Your task to perform on an android device: change alarm snooze length Image 0: 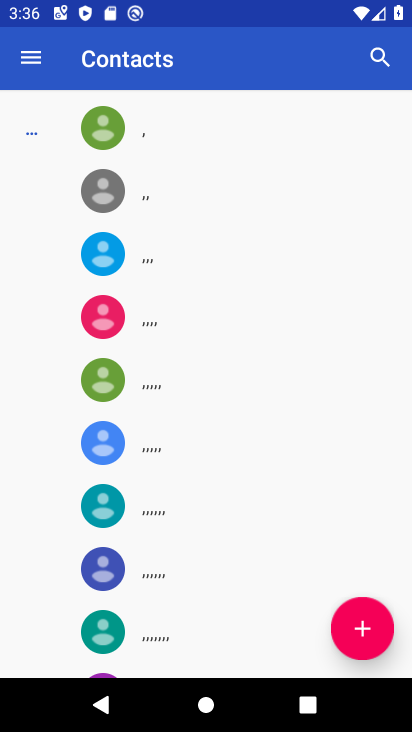
Step 0: press home button
Your task to perform on an android device: change alarm snooze length Image 1: 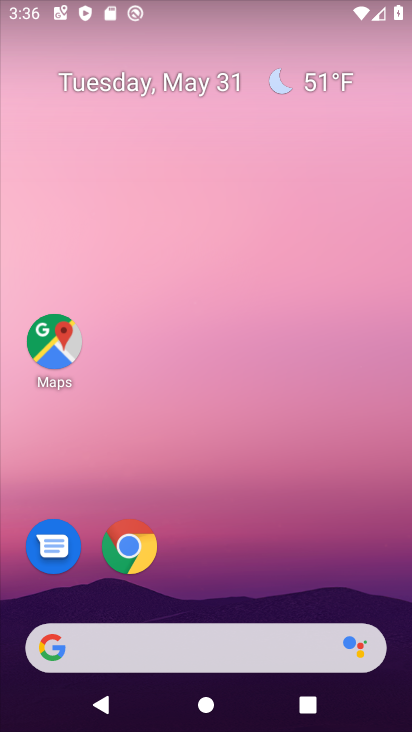
Step 1: drag from (241, 599) to (228, 265)
Your task to perform on an android device: change alarm snooze length Image 2: 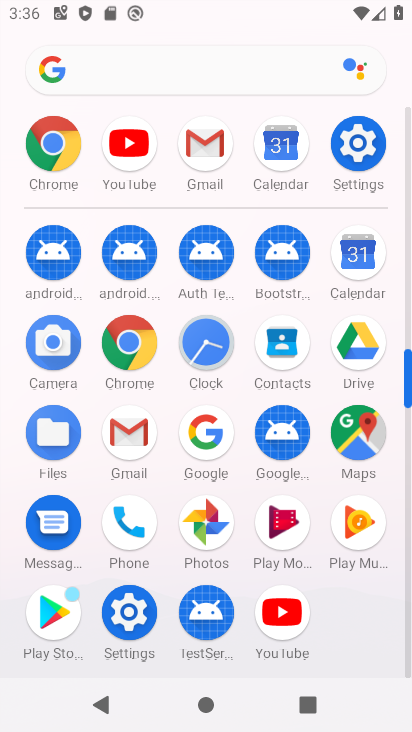
Step 2: click (224, 348)
Your task to perform on an android device: change alarm snooze length Image 3: 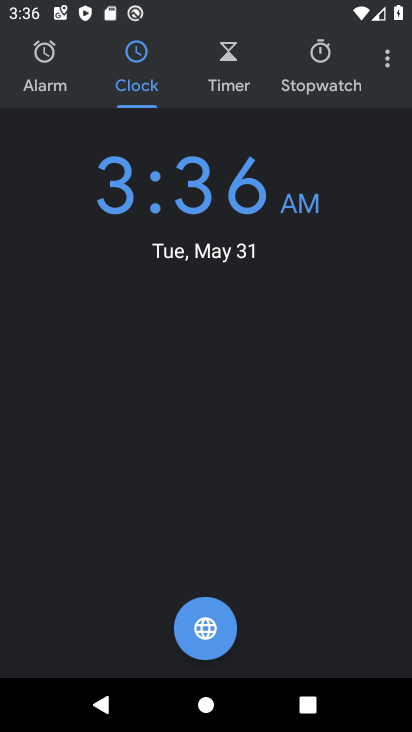
Step 3: click (56, 84)
Your task to perform on an android device: change alarm snooze length Image 4: 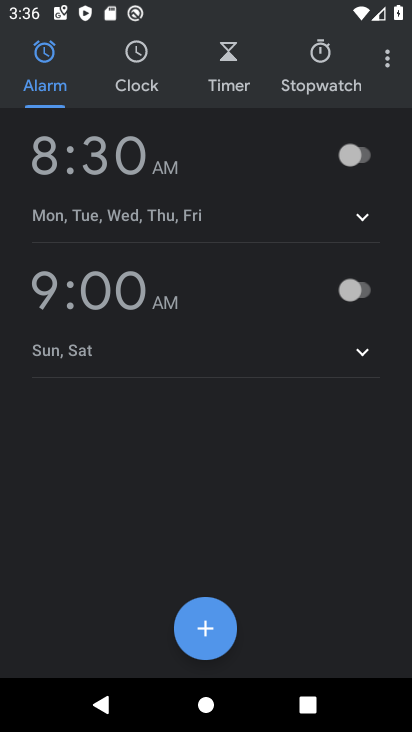
Step 4: click (388, 70)
Your task to perform on an android device: change alarm snooze length Image 5: 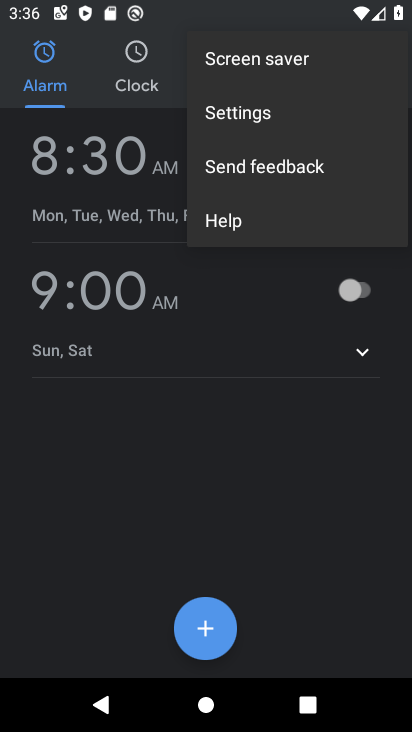
Step 5: click (291, 107)
Your task to perform on an android device: change alarm snooze length Image 6: 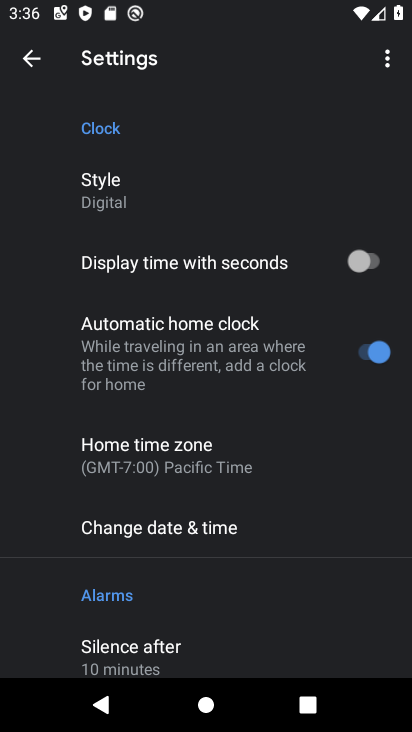
Step 6: drag from (130, 662) to (134, 441)
Your task to perform on an android device: change alarm snooze length Image 7: 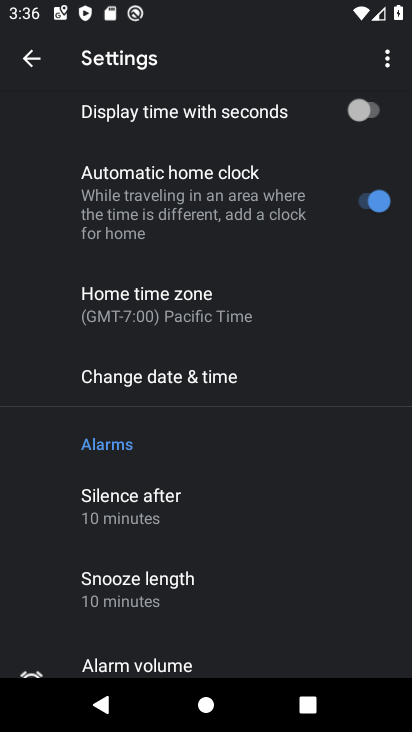
Step 7: click (113, 660)
Your task to perform on an android device: change alarm snooze length Image 8: 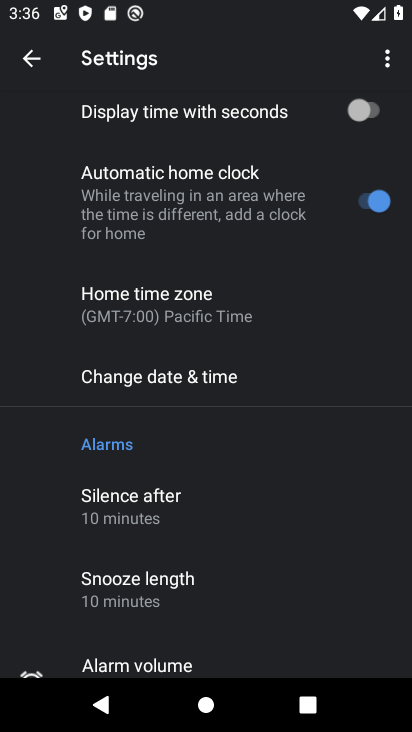
Step 8: click (144, 589)
Your task to perform on an android device: change alarm snooze length Image 9: 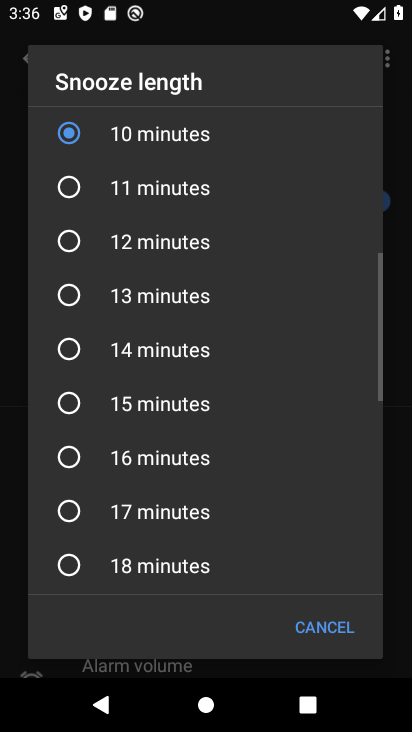
Step 9: click (71, 568)
Your task to perform on an android device: change alarm snooze length Image 10: 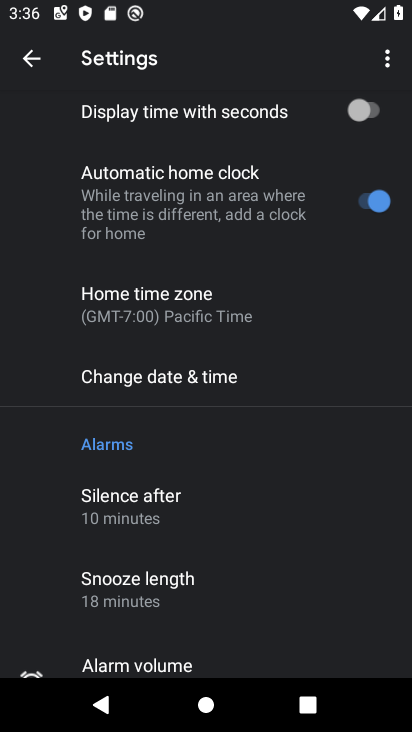
Step 10: task complete